Your task to perform on an android device: Open Maps and search for coffee Image 0: 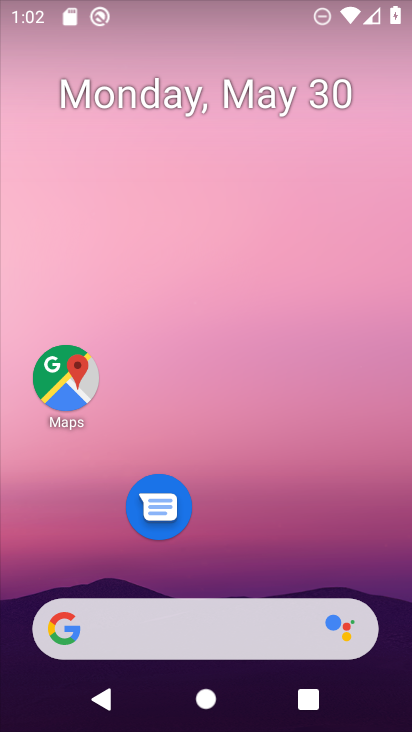
Step 0: drag from (241, 488) to (277, 160)
Your task to perform on an android device: Open Maps and search for coffee Image 1: 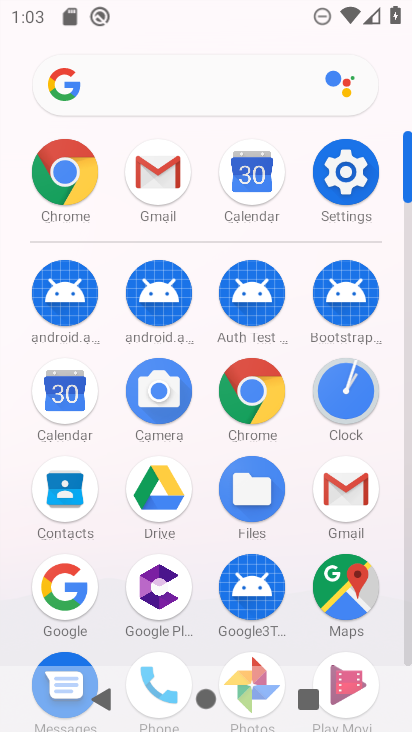
Step 1: click (355, 580)
Your task to perform on an android device: Open Maps and search for coffee Image 2: 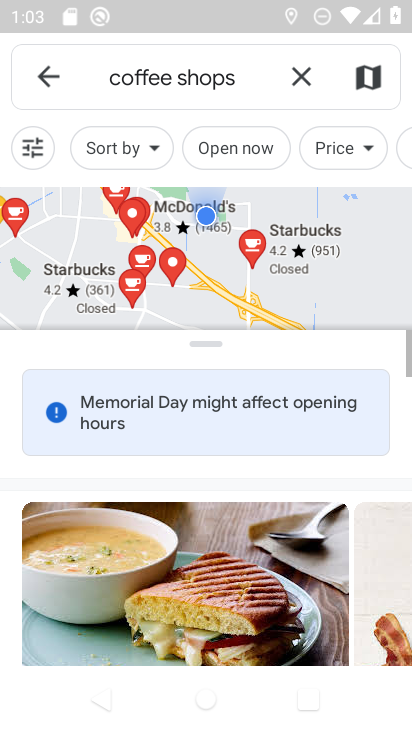
Step 2: click (49, 75)
Your task to perform on an android device: Open Maps and search for coffee Image 3: 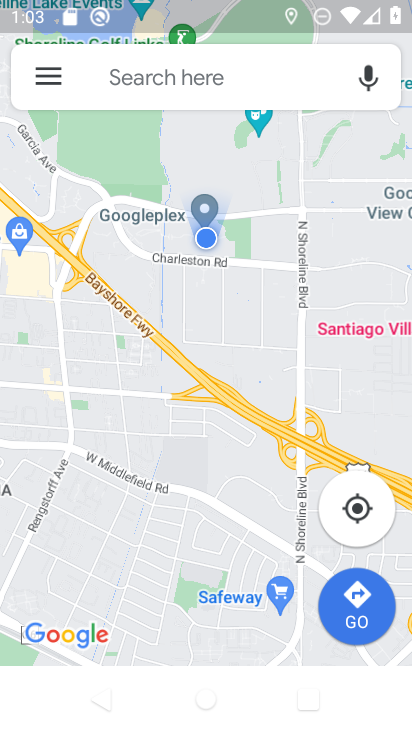
Step 3: click (166, 79)
Your task to perform on an android device: Open Maps and search for coffee Image 4: 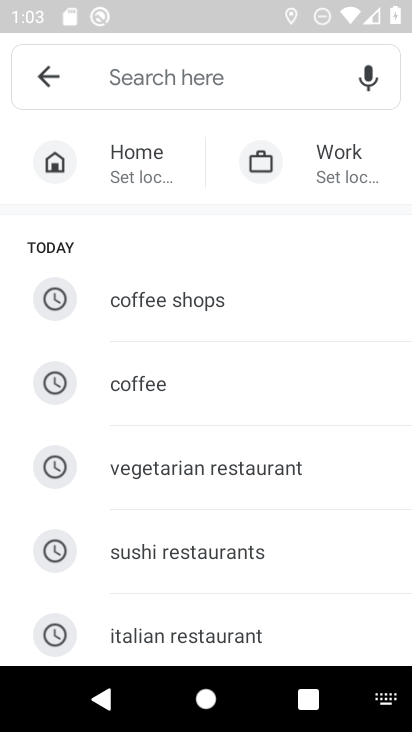
Step 4: type "coffee"
Your task to perform on an android device: Open Maps and search for coffee Image 5: 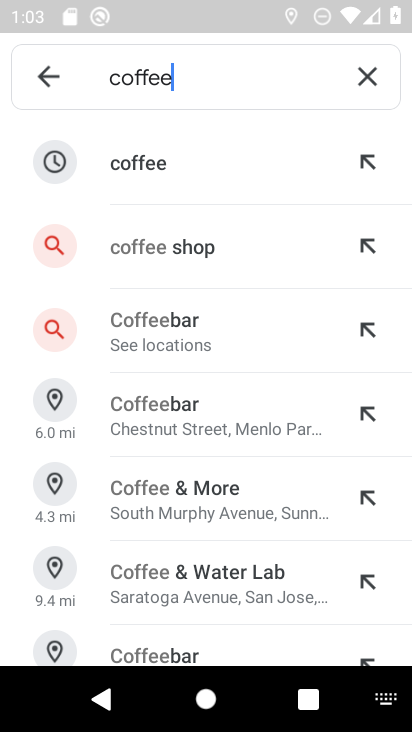
Step 5: click (148, 162)
Your task to perform on an android device: Open Maps and search for coffee Image 6: 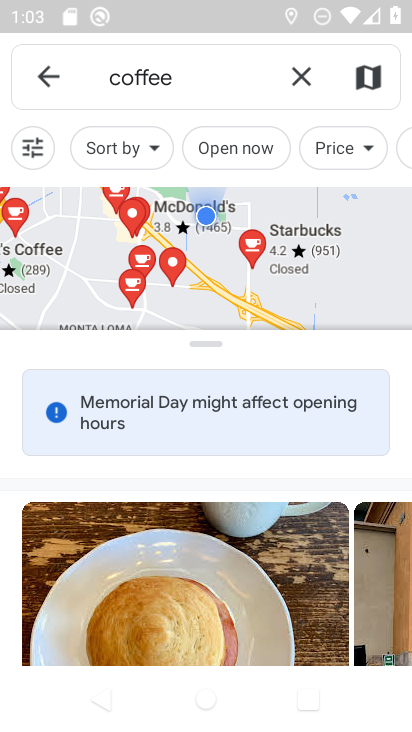
Step 6: task complete